Your task to perform on an android device: Open Google Chrome Image 0: 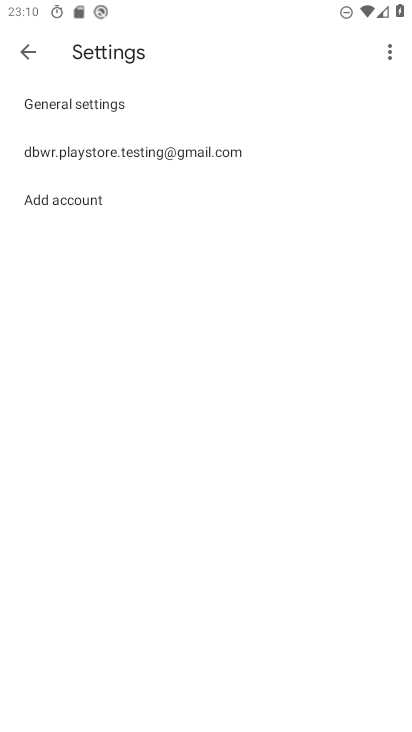
Step 0: press home button
Your task to perform on an android device: Open Google Chrome Image 1: 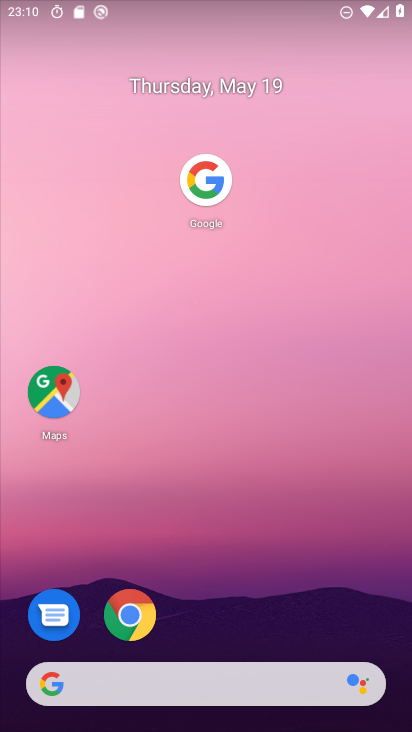
Step 1: click (137, 613)
Your task to perform on an android device: Open Google Chrome Image 2: 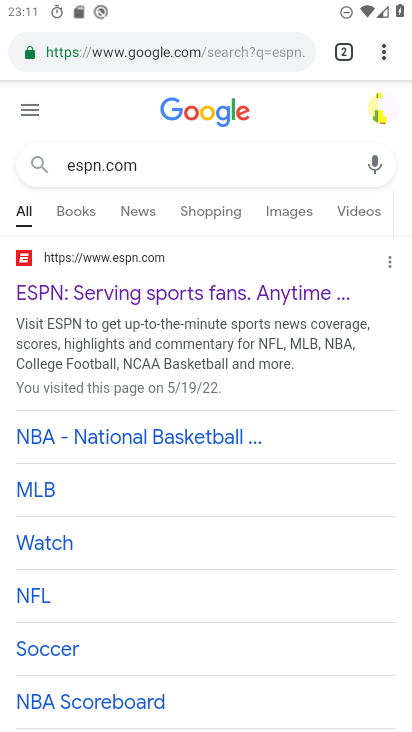
Step 2: task complete